Your task to perform on an android device: open sync settings in chrome Image 0: 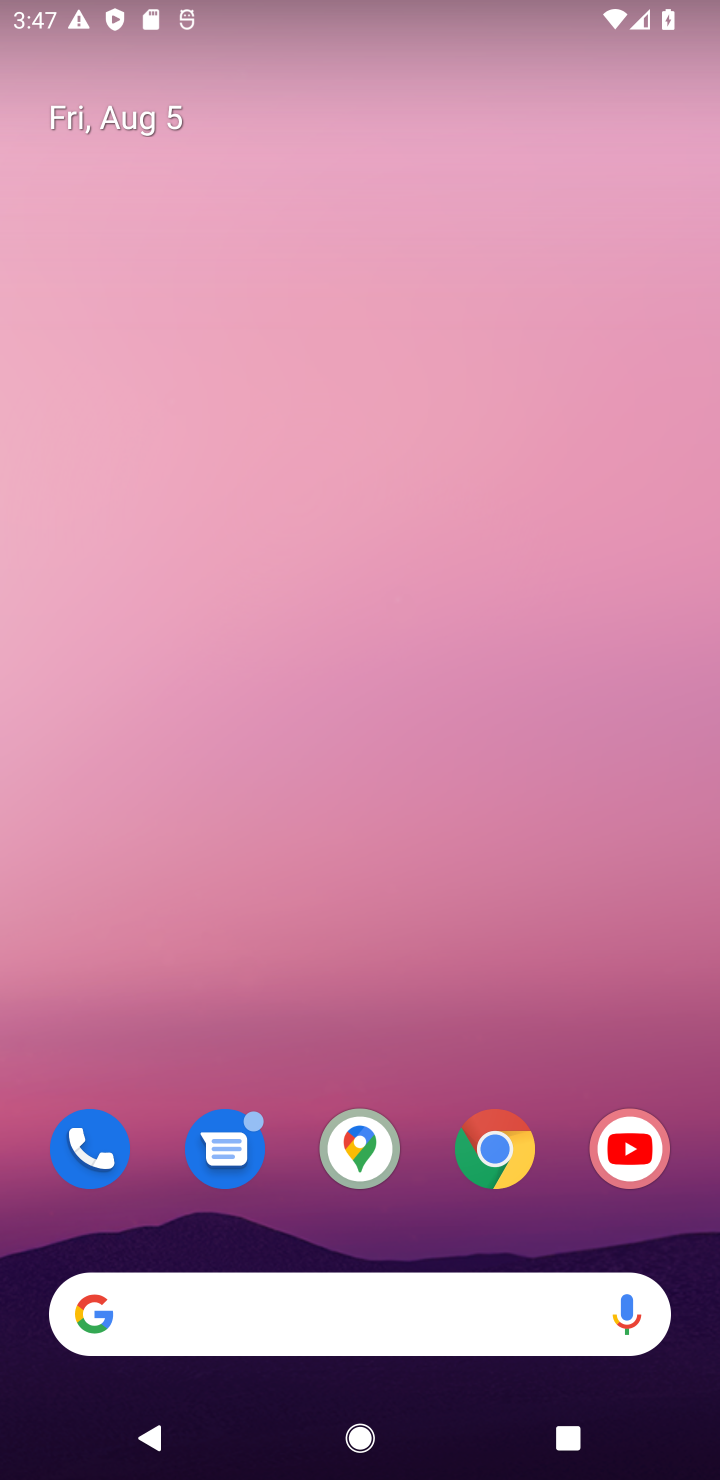
Step 0: press back button
Your task to perform on an android device: open sync settings in chrome Image 1: 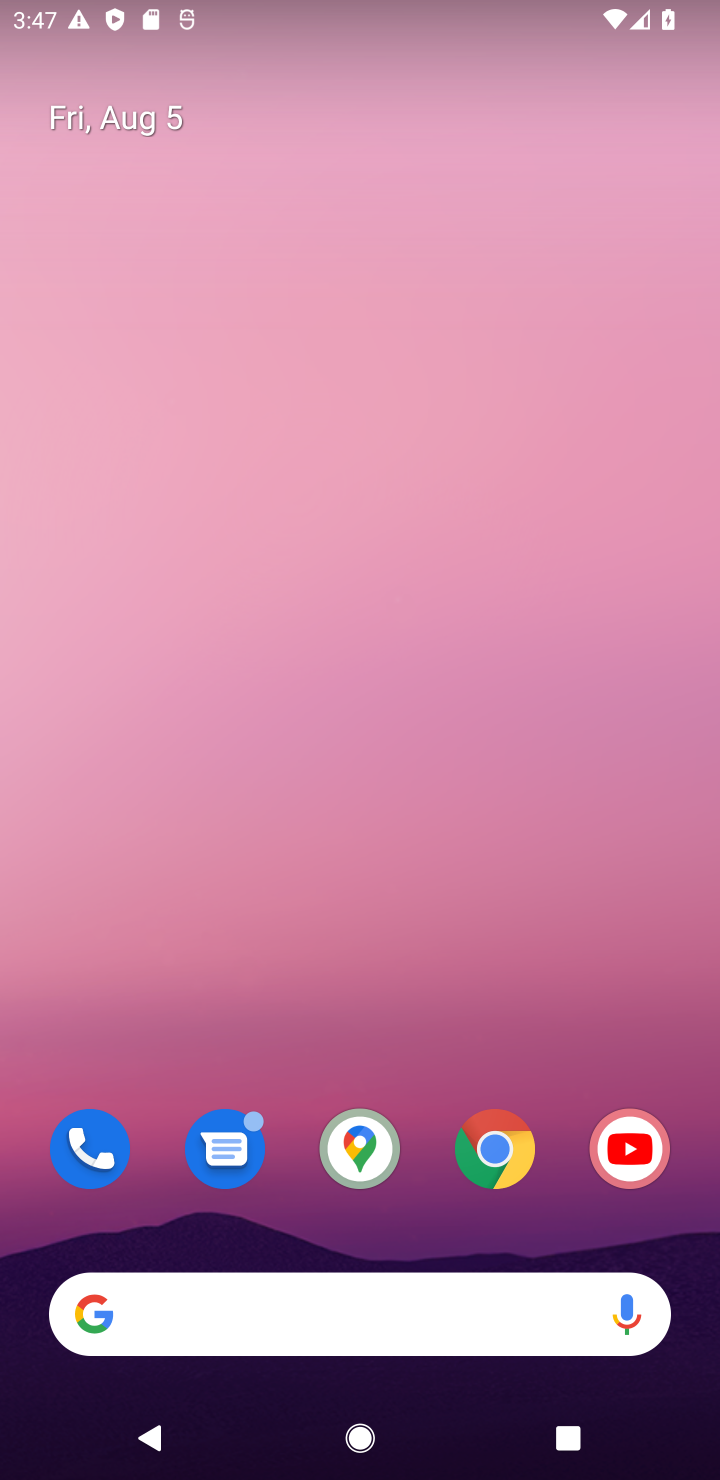
Step 1: drag from (373, 886) to (57, 444)
Your task to perform on an android device: open sync settings in chrome Image 2: 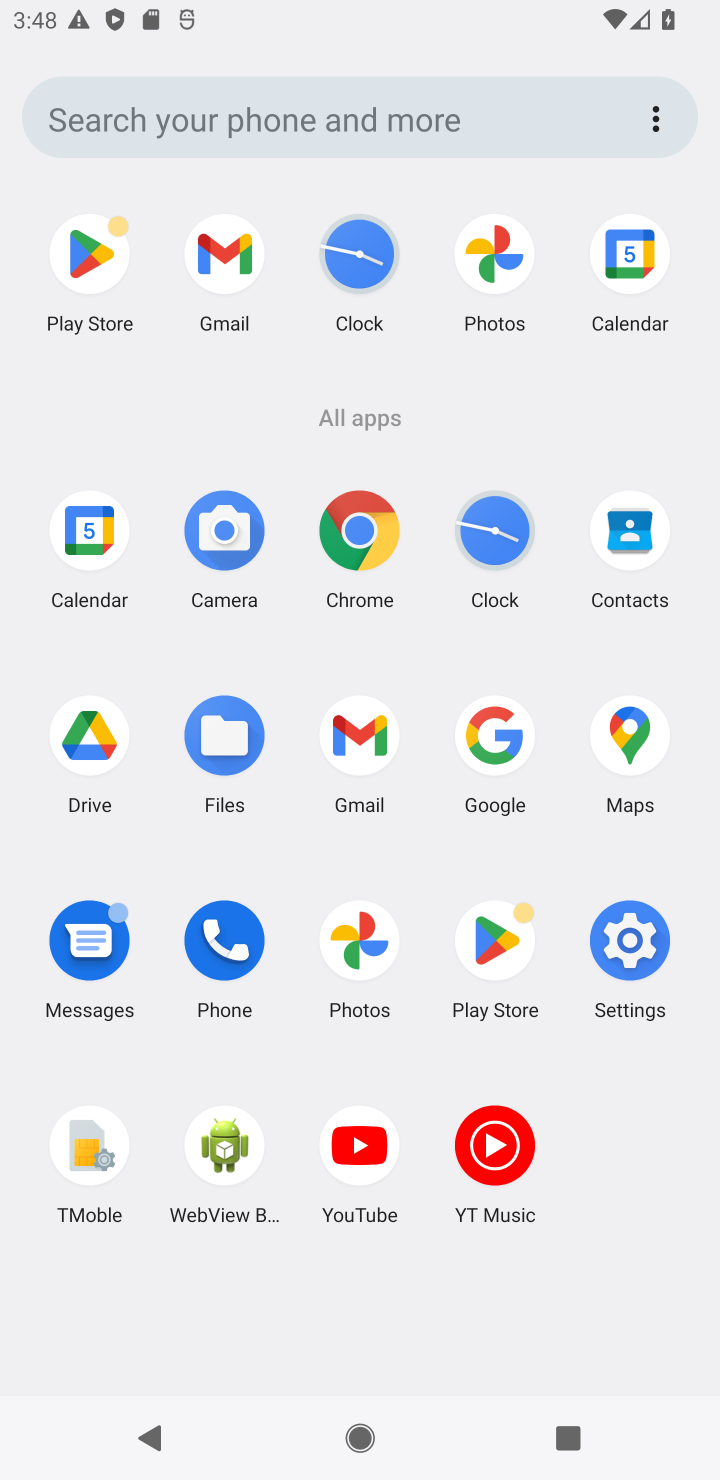
Step 2: click (376, 541)
Your task to perform on an android device: open sync settings in chrome Image 3: 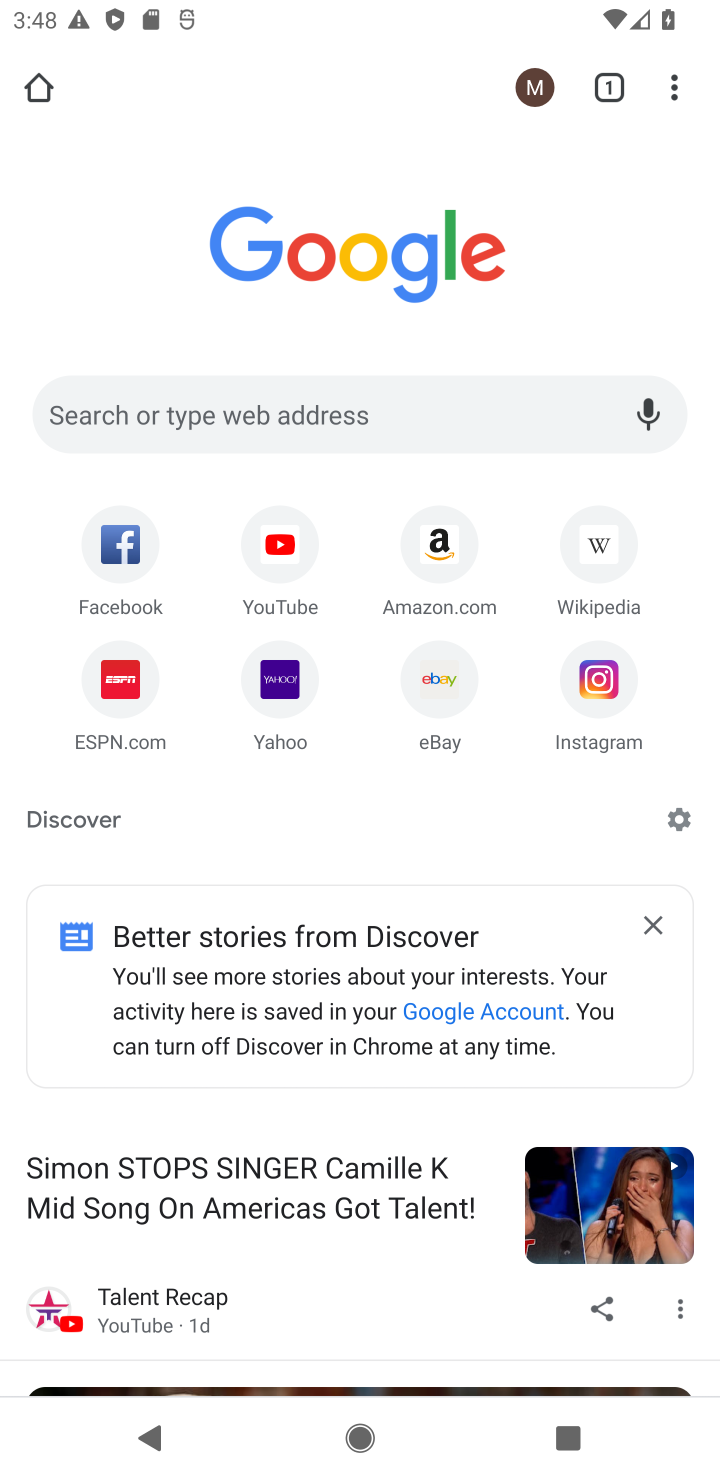
Step 3: drag from (664, 99) to (411, 757)
Your task to perform on an android device: open sync settings in chrome Image 4: 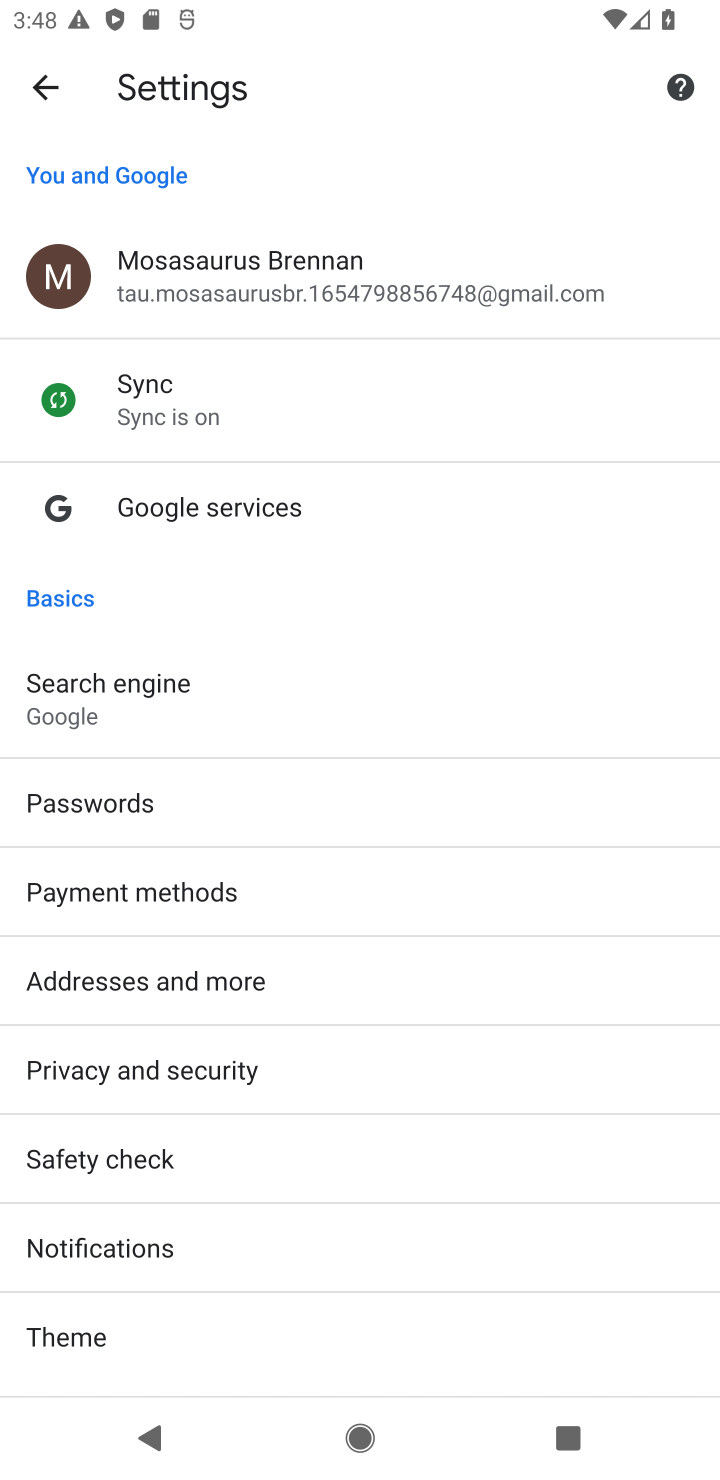
Step 4: click (285, 380)
Your task to perform on an android device: open sync settings in chrome Image 5: 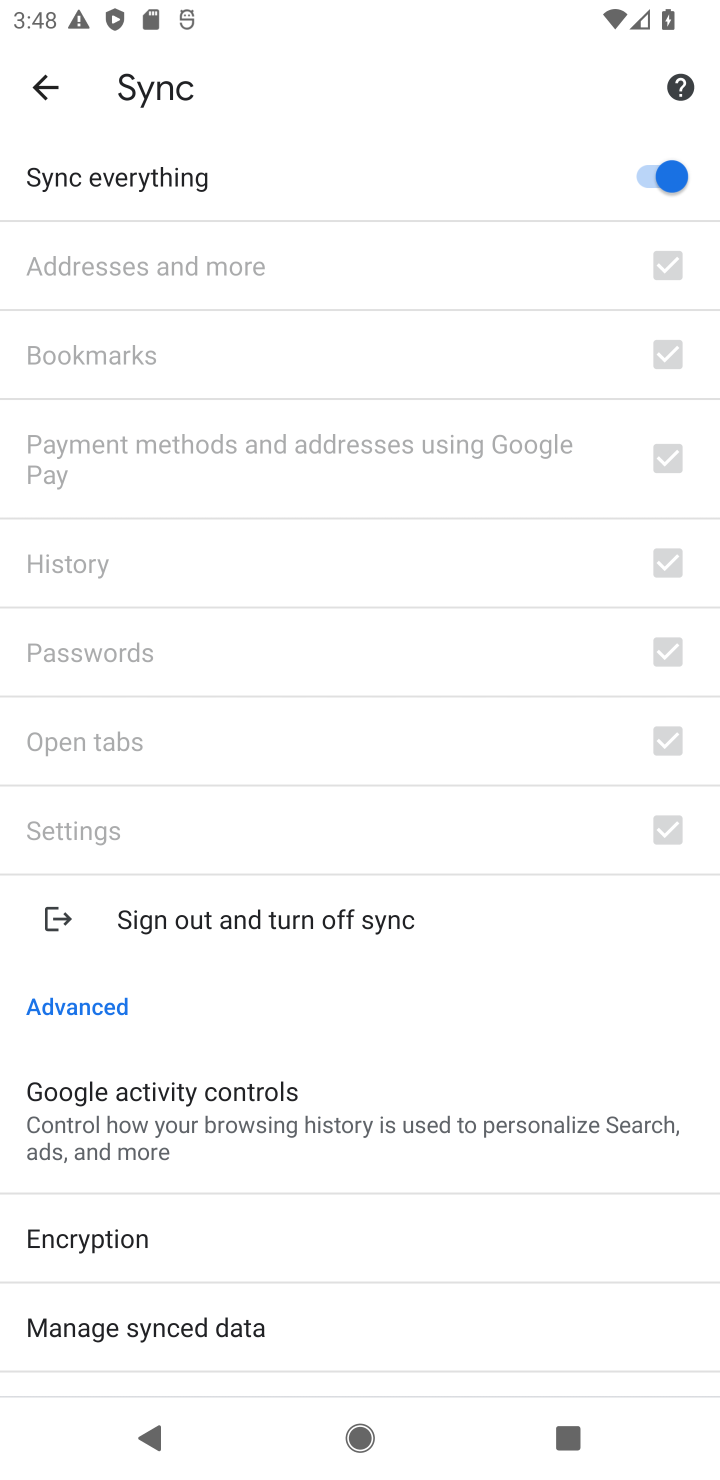
Step 5: task complete